Your task to perform on an android device: delete browsing data in the chrome app Image 0: 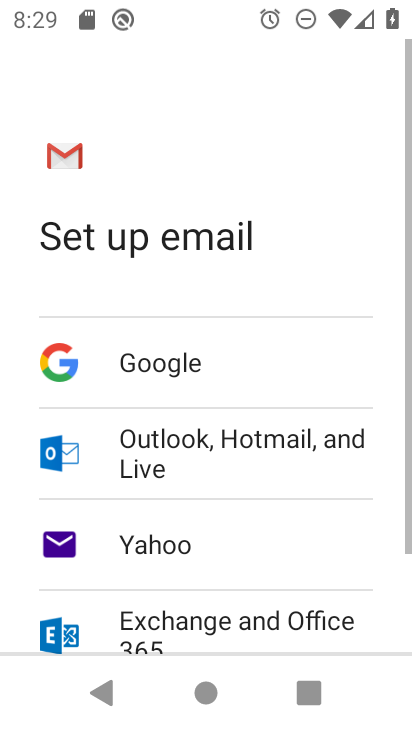
Step 0: press home button
Your task to perform on an android device: delete browsing data in the chrome app Image 1: 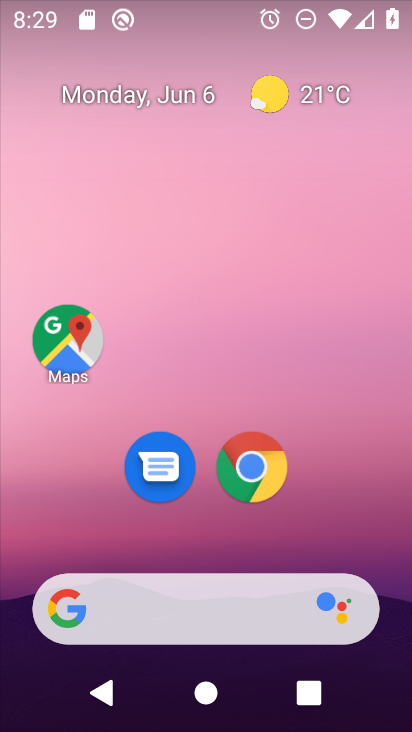
Step 1: drag from (359, 526) to (361, 133)
Your task to perform on an android device: delete browsing data in the chrome app Image 2: 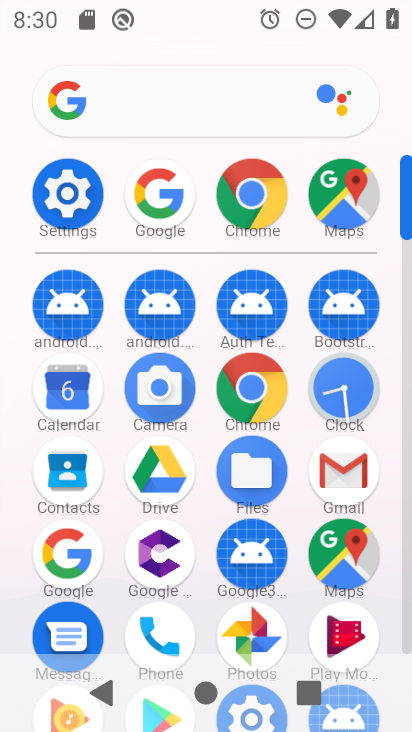
Step 2: click (268, 387)
Your task to perform on an android device: delete browsing data in the chrome app Image 3: 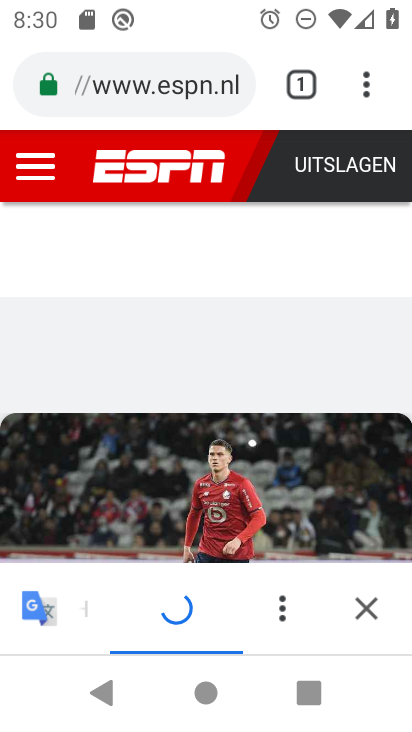
Step 3: click (367, 91)
Your task to perform on an android device: delete browsing data in the chrome app Image 4: 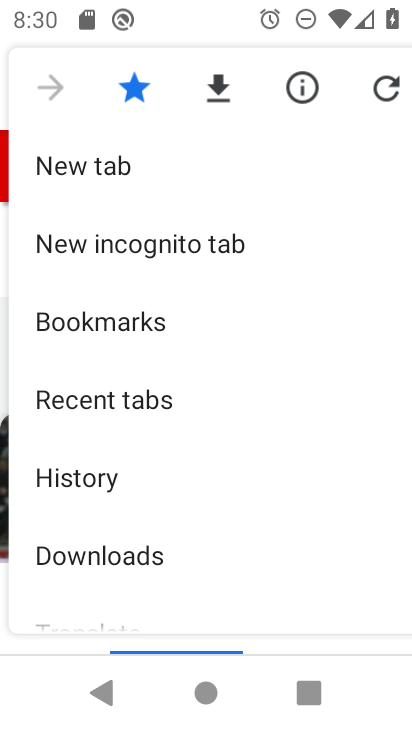
Step 4: drag from (319, 461) to (325, 338)
Your task to perform on an android device: delete browsing data in the chrome app Image 5: 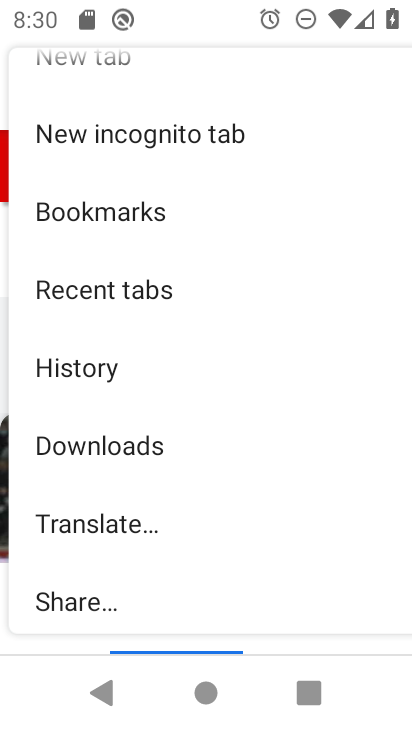
Step 5: drag from (322, 497) to (320, 357)
Your task to perform on an android device: delete browsing data in the chrome app Image 6: 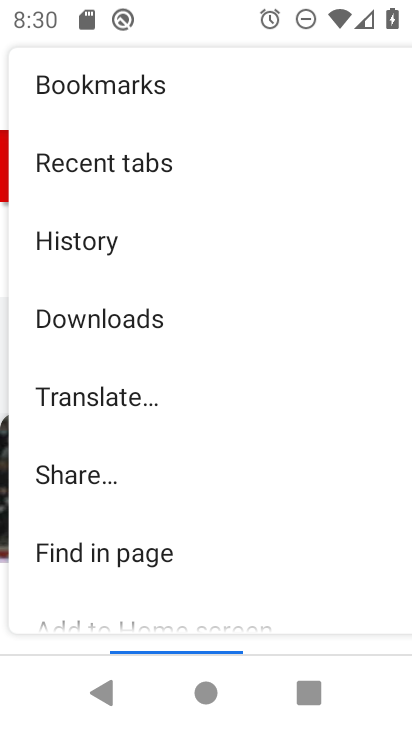
Step 6: drag from (315, 488) to (311, 367)
Your task to perform on an android device: delete browsing data in the chrome app Image 7: 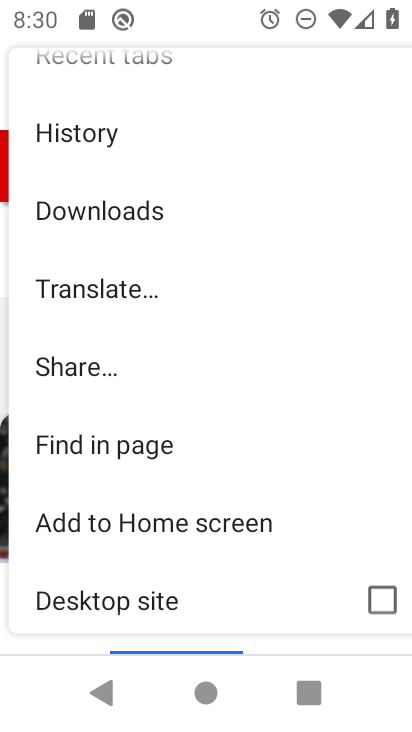
Step 7: drag from (339, 531) to (343, 347)
Your task to perform on an android device: delete browsing data in the chrome app Image 8: 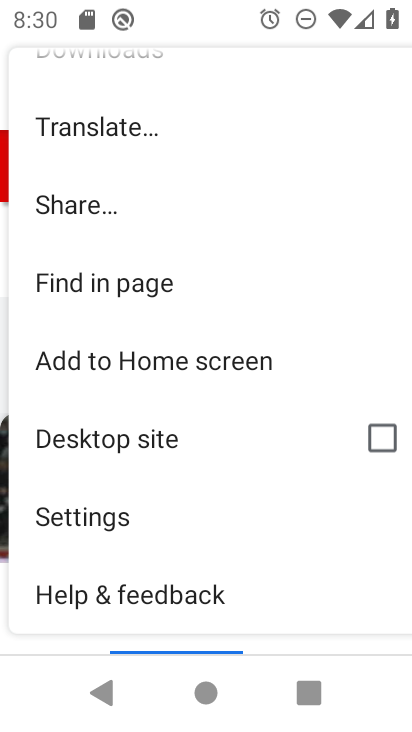
Step 8: click (123, 532)
Your task to perform on an android device: delete browsing data in the chrome app Image 9: 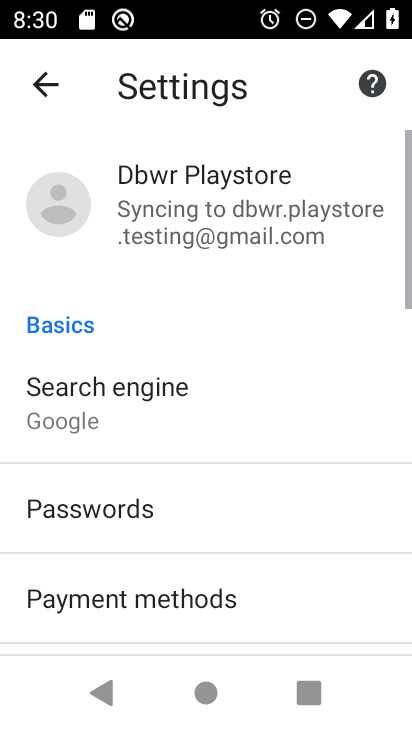
Step 9: drag from (333, 508) to (336, 390)
Your task to perform on an android device: delete browsing data in the chrome app Image 10: 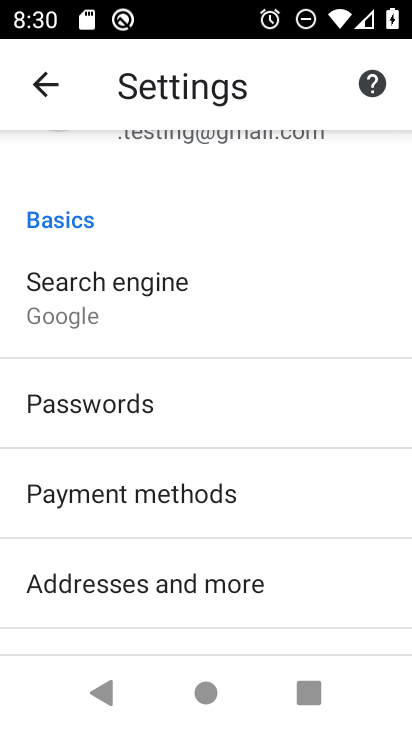
Step 10: drag from (337, 530) to (337, 401)
Your task to perform on an android device: delete browsing data in the chrome app Image 11: 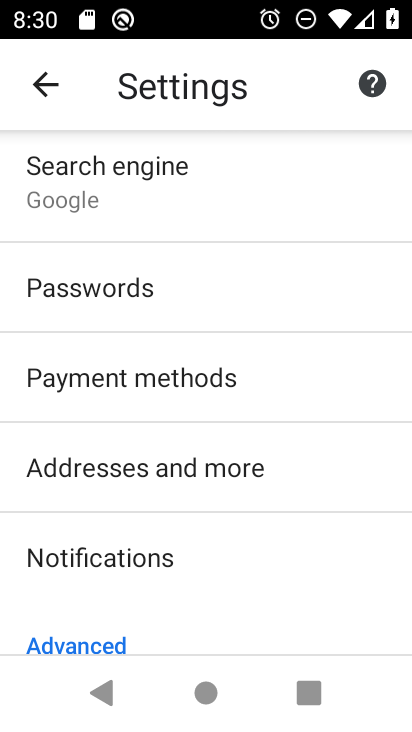
Step 11: drag from (361, 550) to (349, 428)
Your task to perform on an android device: delete browsing data in the chrome app Image 12: 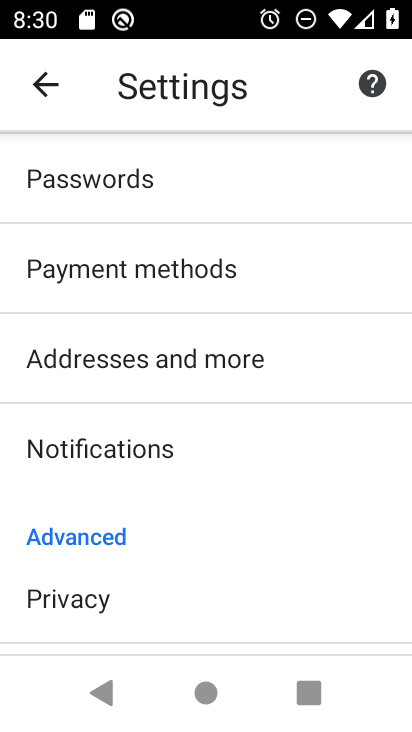
Step 12: drag from (342, 516) to (352, 389)
Your task to perform on an android device: delete browsing data in the chrome app Image 13: 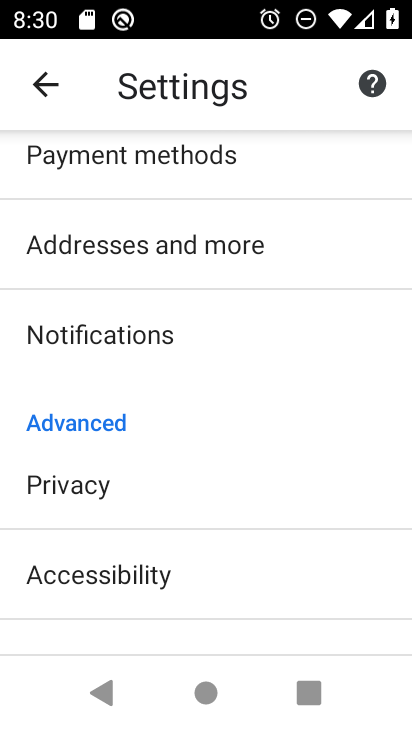
Step 13: drag from (348, 535) to (353, 423)
Your task to perform on an android device: delete browsing data in the chrome app Image 14: 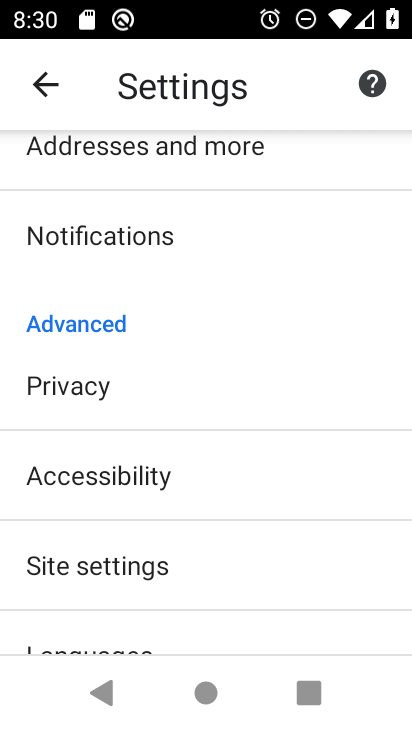
Step 14: drag from (364, 552) to (344, 446)
Your task to perform on an android device: delete browsing data in the chrome app Image 15: 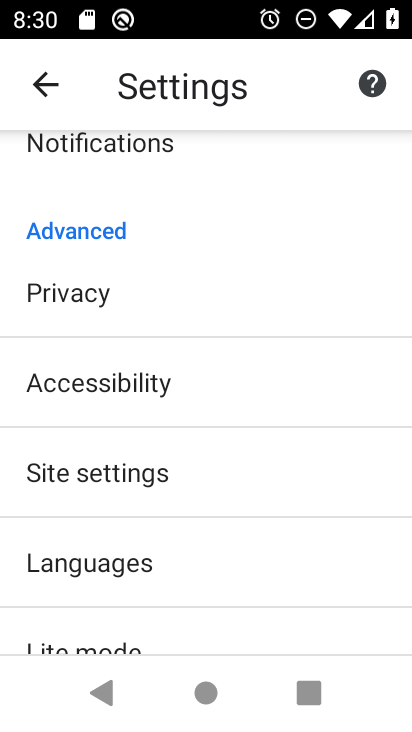
Step 15: drag from (307, 548) to (312, 414)
Your task to perform on an android device: delete browsing data in the chrome app Image 16: 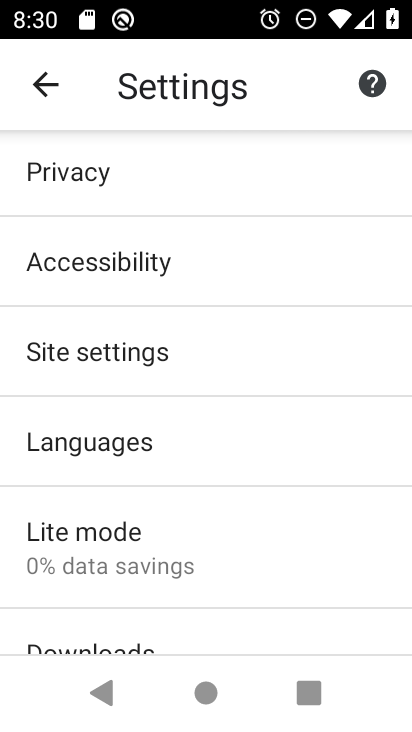
Step 16: click (221, 186)
Your task to perform on an android device: delete browsing data in the chrome app Image 17: 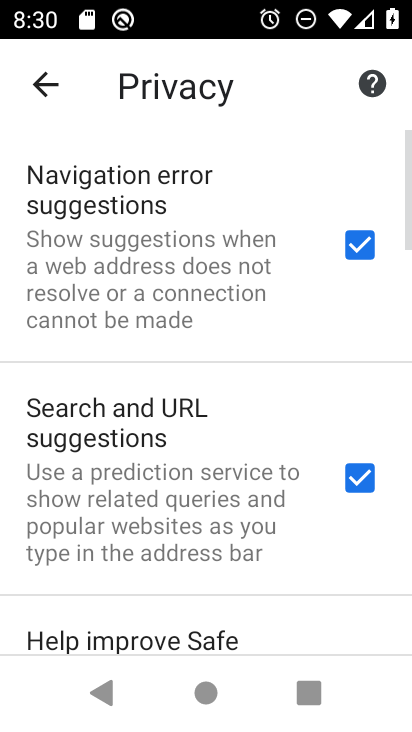
Step 17: drag from (314, 507) to (315, 336)
Your task to perform on an android device: delete browsing data in the chrome app Image 18: 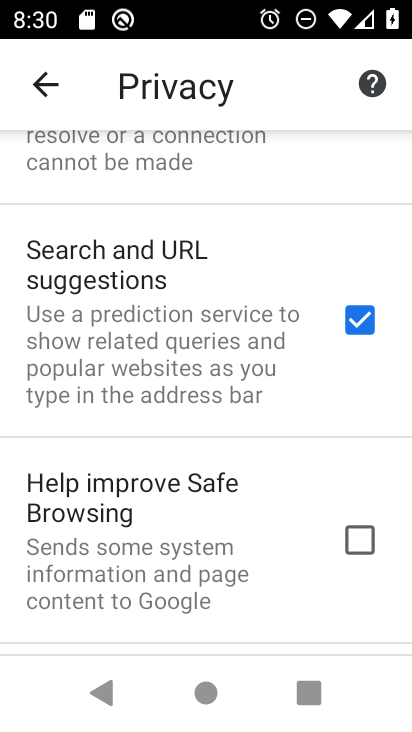
Step 18: drag from (286, 504) to (284, 363)
Your task to perform on an android device: delete browsing data in the chrome app Image 19: 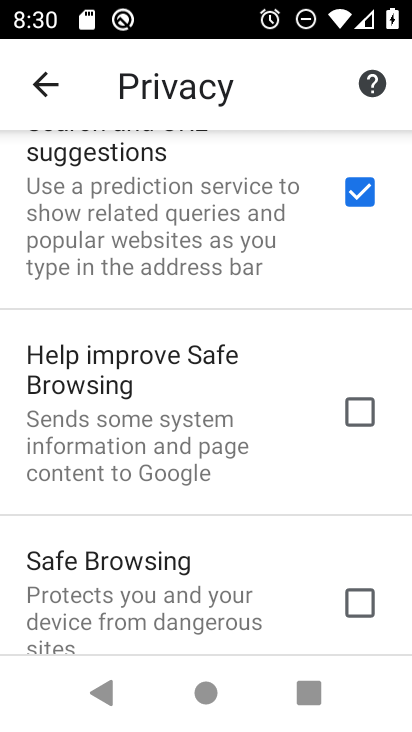
Step 19: drag from (276, 534) to (273, 387)
Your task to perform on an android device: delete browsing data in the chrome app Image 20: 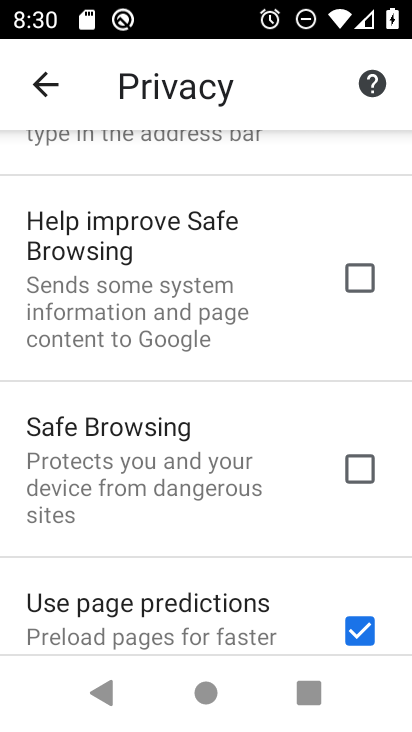
Step 20: drag from (289, 549) to (283, 404)
Your task to perform on an android device: delete browsing data in the chrome app Image 21: 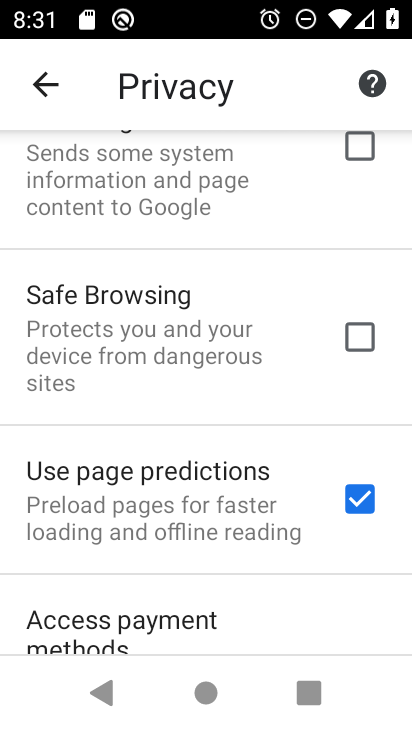
Step 21: drag from (312, 571) to (299, 423)
Your task to perform on an android device: delete browsing data in the chrome app Image 22: 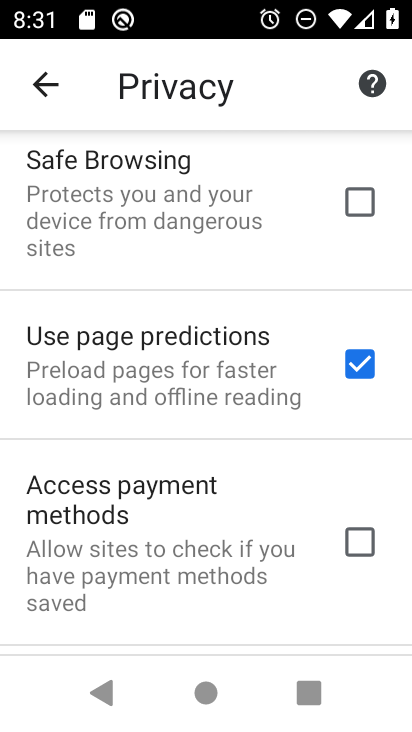
Step 22: drag from (306, 603) to (296, 425)
Your task to perform on an android device: delete browsing data in the chrome app Image 23: 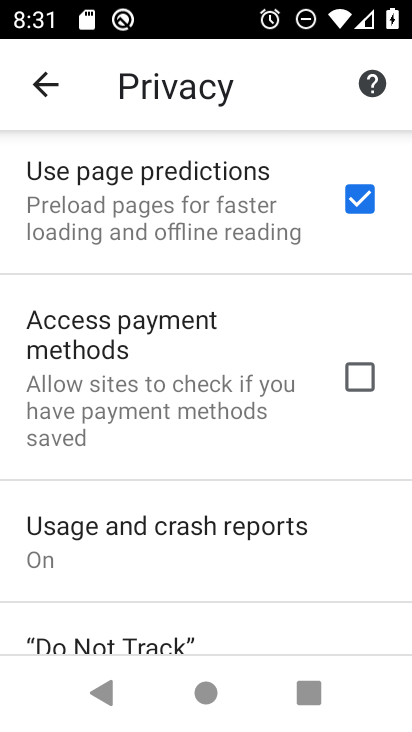
Step 23: drag from (280, 585) to (291, 350)
Your task to perform on an android device: delete browsing data in the chrome app Image 24: 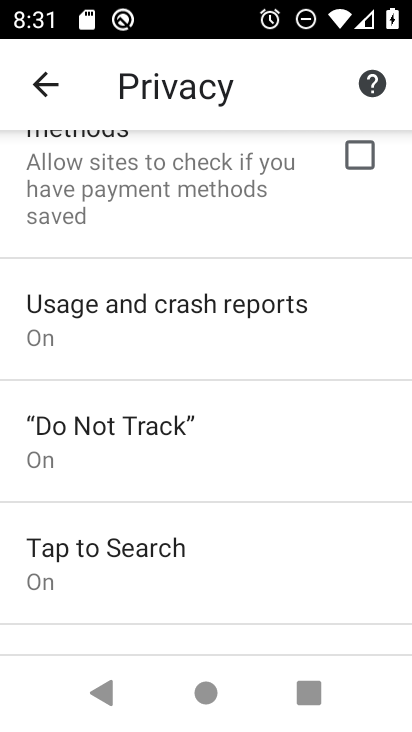
Step 24: drag from (286, 595) to (288, 363)
Your task to perform on an android device: delete browsing data in the chrome app Image 25: 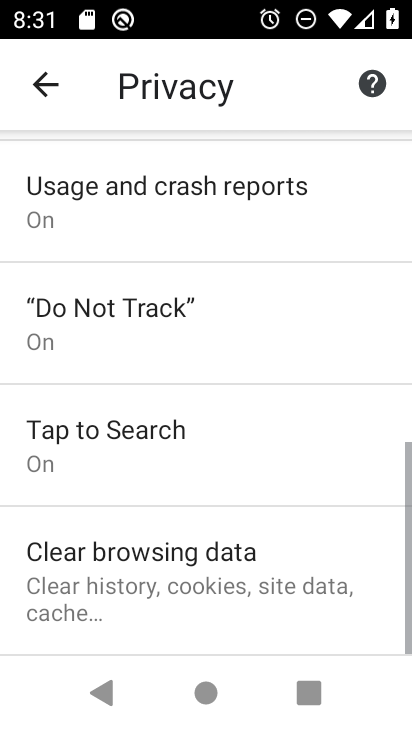
Step 25: click (273, 572)
Your task to perform on an android device: delete browsing data in the chrome app Image 26: 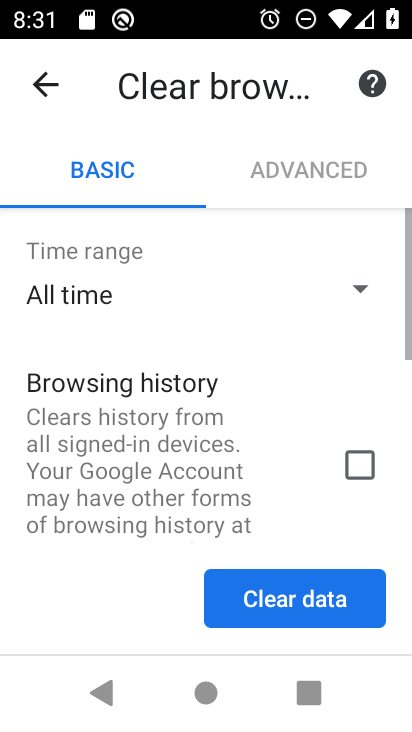
Step 26: click (363, 469)
Your task to perform on an android device: delete browsing data in the chrome app Image 27: 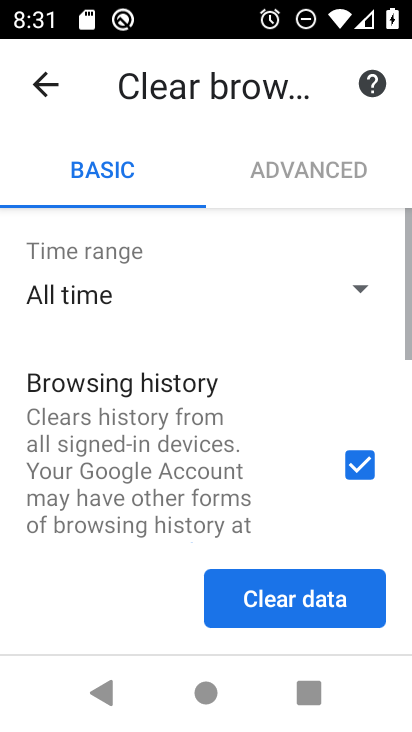
Step 27: drag from (267, 469) to (281, 251)
Your task to perform on an android device: delete browsing data in the chrome app Image 28: 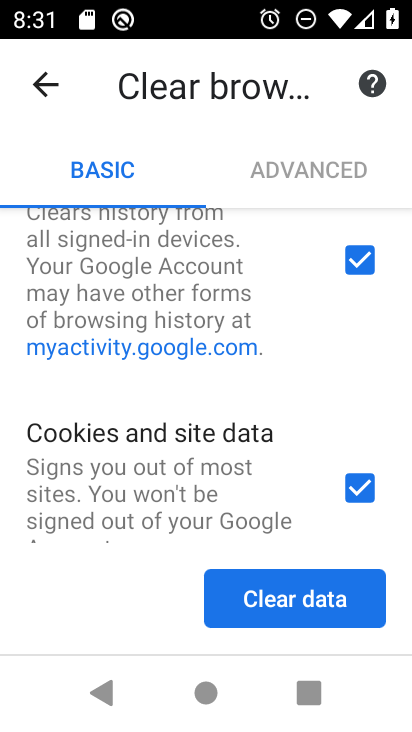
Step 28: click (302, 604)
Your task to perform on an android device: delete browsing data in the chrome app Image 29: 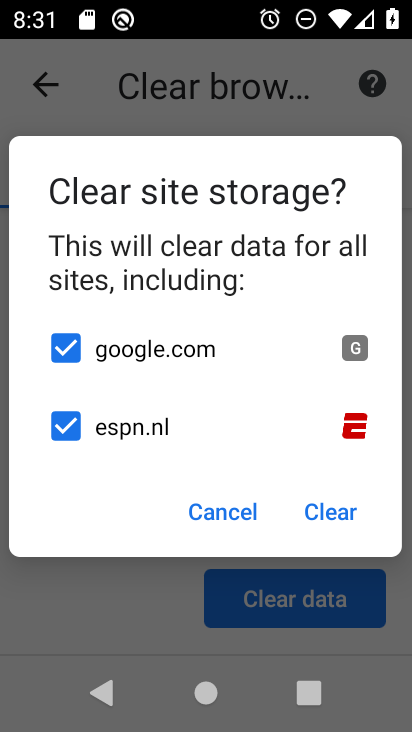
Step 29: click (353, 501)
Your task to perform on an android device: delete browsing data in the chrome app Image 30: 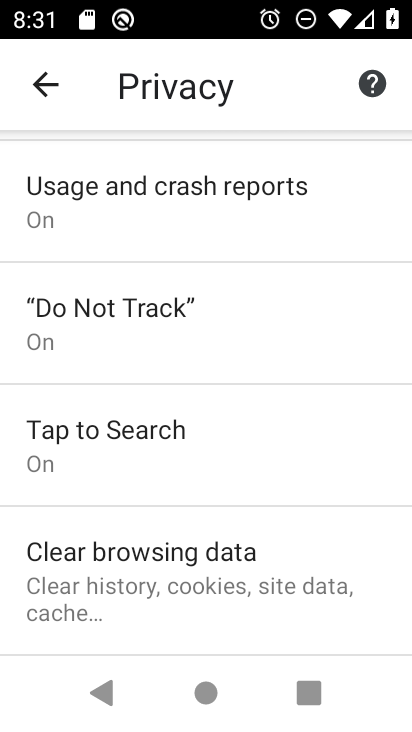
Step 30: task complete